Your task to perform on an android device: Open the calendar and show me this week's events Image 0: 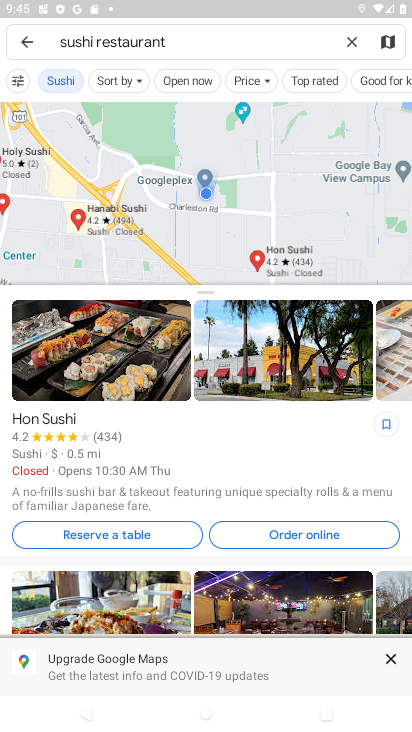
Step 0: press home button
Your task to perform on an android device: Open the calendar and show me this week's events Image 1: 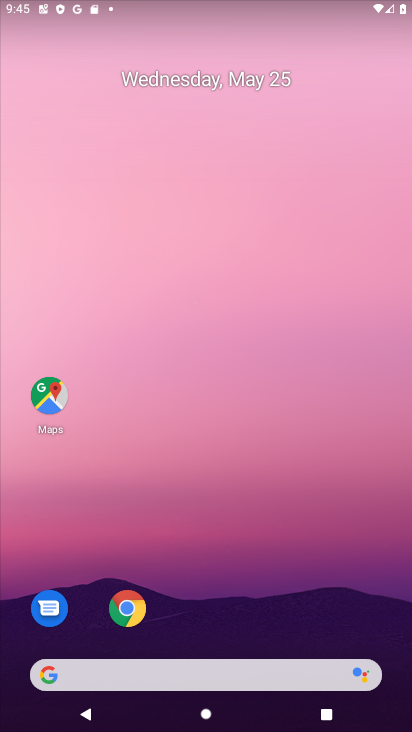
Step 1: drag from (212, 642) to (215, 4)
Your task to perform on an android device: Open the calendar and show me this week's events Image 2: 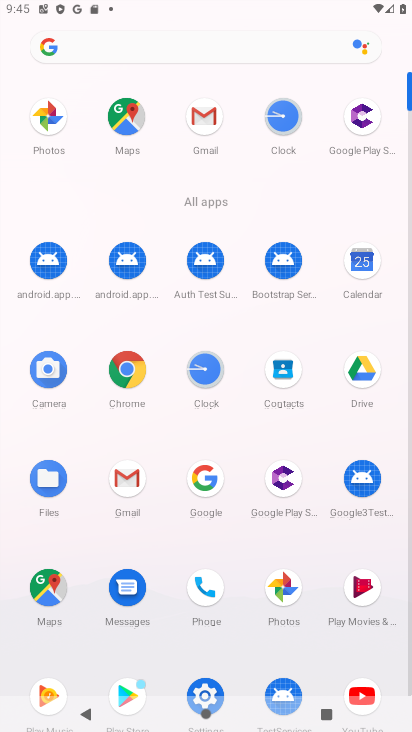
Step 2: click (360, 261)
Your task to perform on an android device: Open the calendar and show me this week's events Image 3: 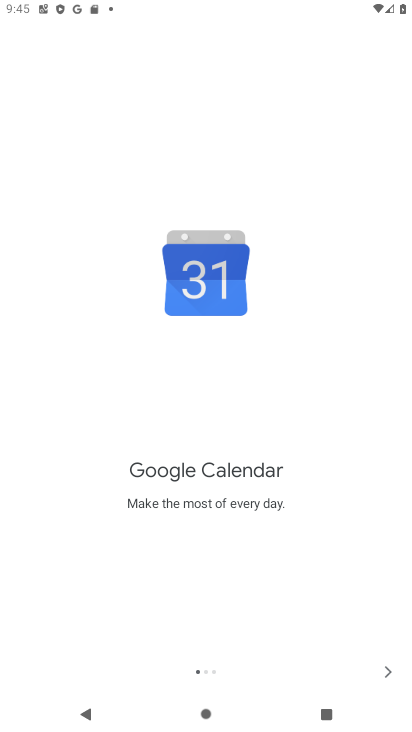
Step 3: click (387, 678)
Your task to perform on an android device: Open the calendar and show me this week's events Image 4: 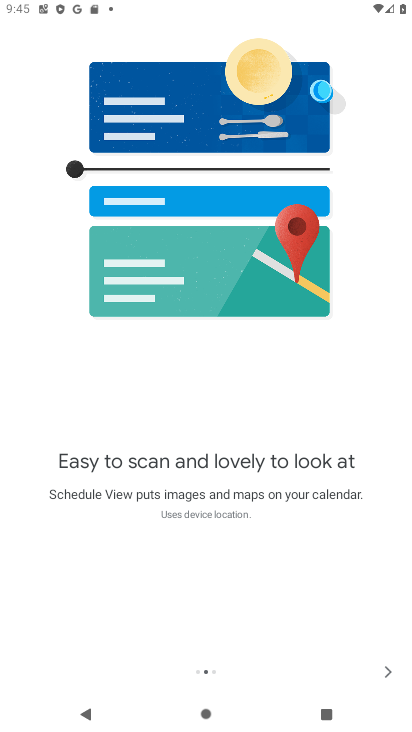
Step 4: click (387, 678)
Your task to perform on an android device: Open the calendar and show me this week's events Image 5: 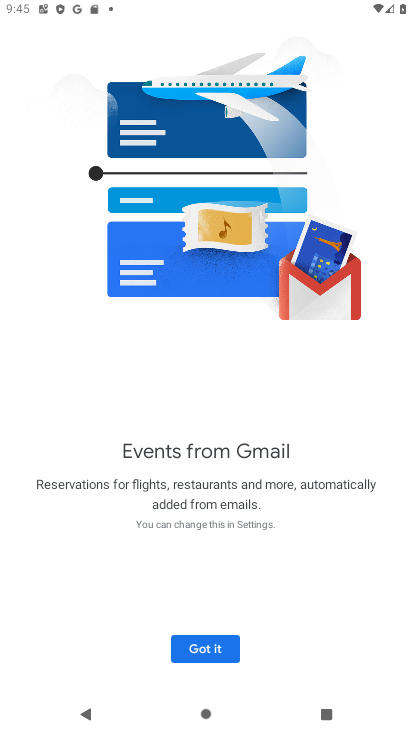
Step 5: click (212, 651)
Your task to perform on an android device: Open the calendar and show me this week's events Image 6: 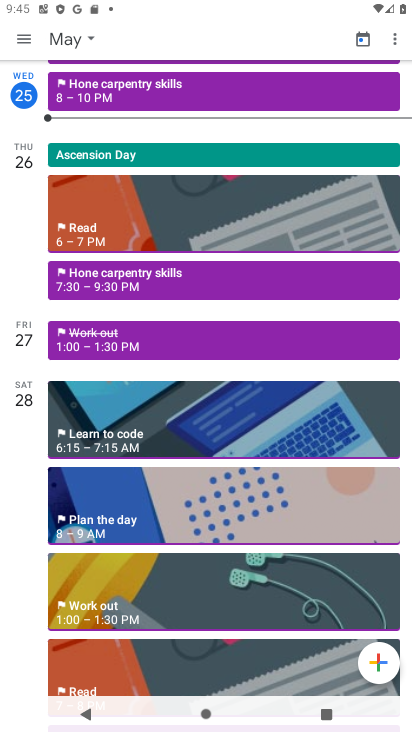
Step 6: click (25, 37)
Your task to perform on an android device: Open the calendar and show me this week's events Image 7: 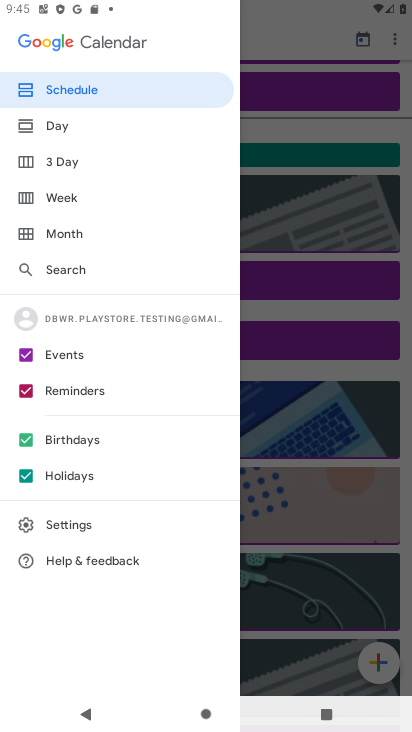
Step 7: click (30, 479)
Your task to perform on an android device: Open the calendar and show me this week's events Image 8: 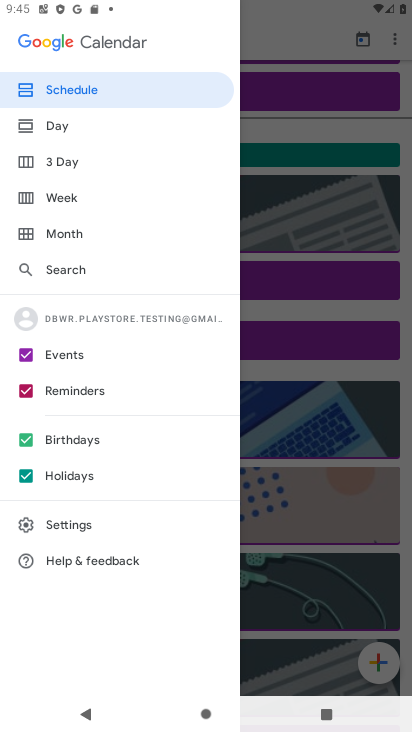
Step 8: click (25, 440)
Your task to perform on an android device: Open the calendar and show me this week's events Image 9: 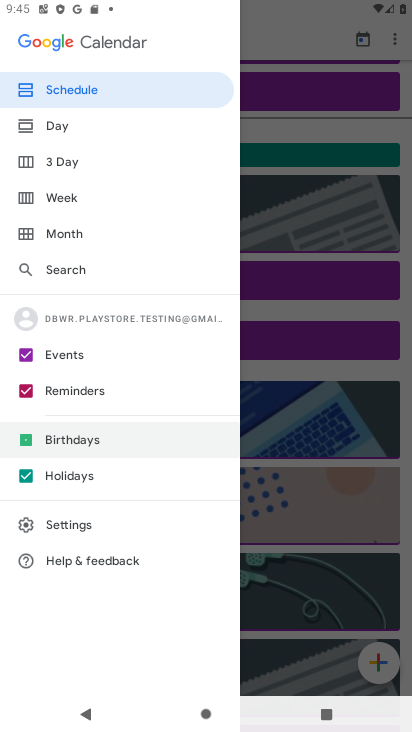
Step 9: click (25, 383)
Your task to perform on an android device: Open the calendar and show me this week's events Image 10: 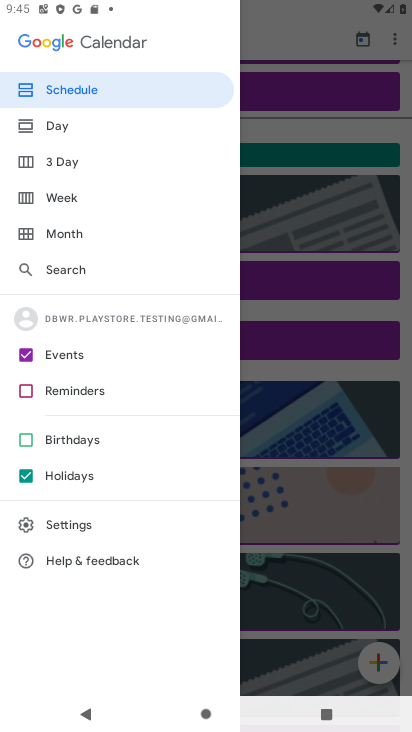
Step 10: click (25, 476)
Your task to perform on an android device: Open the calendar and show me this week's events Image 11: 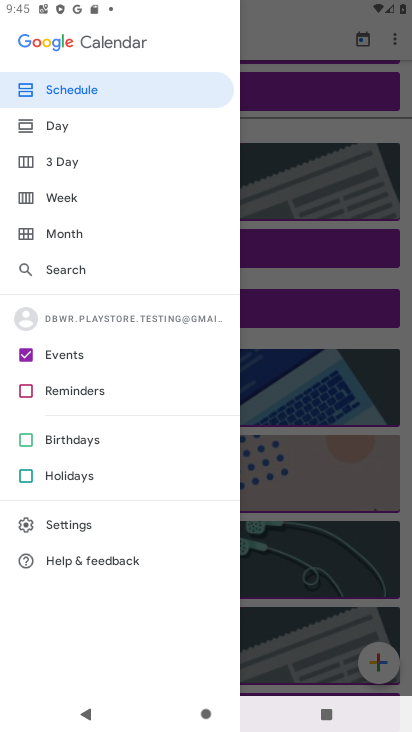
Step 11: click (23, 196)
Your task to perform on an android device: Open the calendar and show me this week's events Image 12: 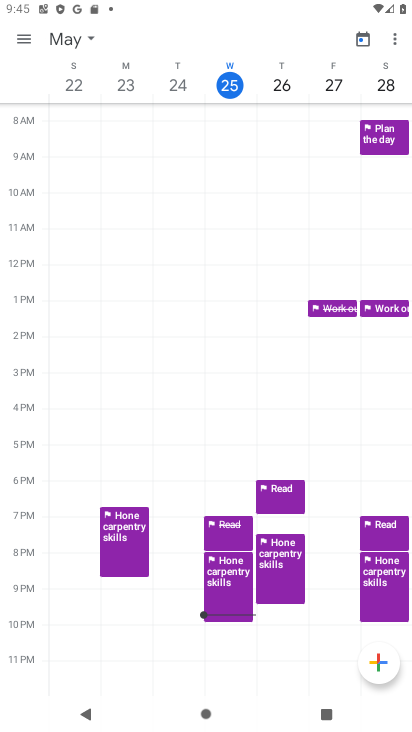
Step 12: task complete